Your task to perform on an android device: turn on the 24-hour format for clock Image 0: 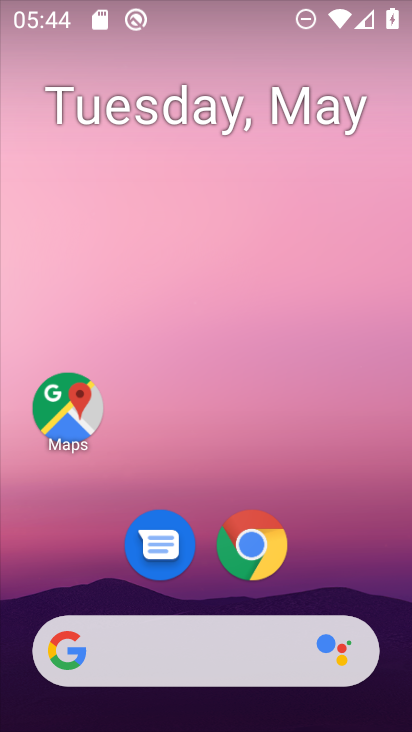
Step 0: drag from (368, 536) to (246, 0)
Your task to perform on an android device: turn on the 24-hour format for clock Image 1: 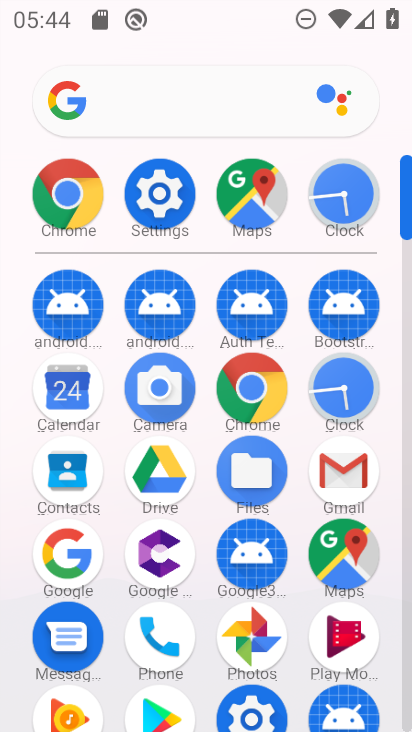
Step 1: click (340, 383)
Your task to perform on an android device: turn on the 24-hour format for clock Image 2: 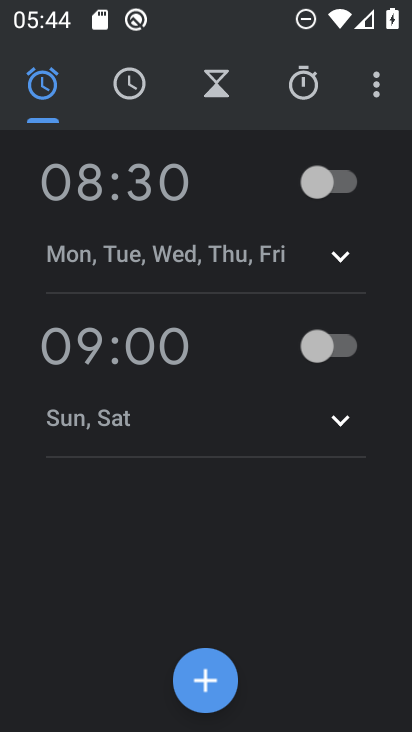
Step 2: drag from (372, 89) to (249, 162)
Your task to perform on an android device: turn on the 24-hour format for clock Image 3: 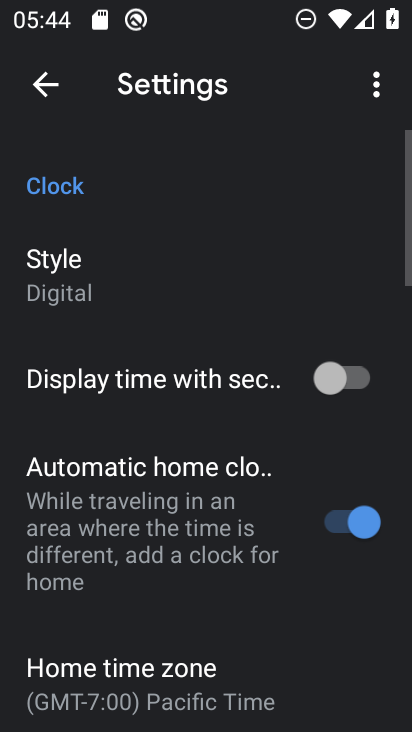
Step 3: drag from (210, 589) to (208, 217)
Your task to perform on an android device: turn on the 24-hour format for clock Image 4: 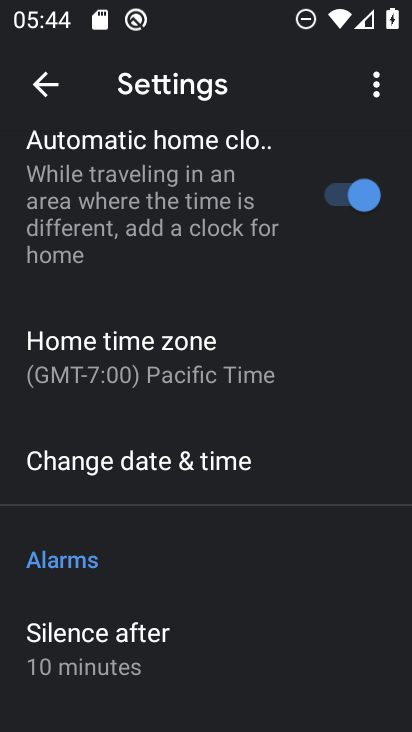
Step 4: click (169, 447)
Your task to perform on an android device: turn on the 24-hour format for clock Image 5: 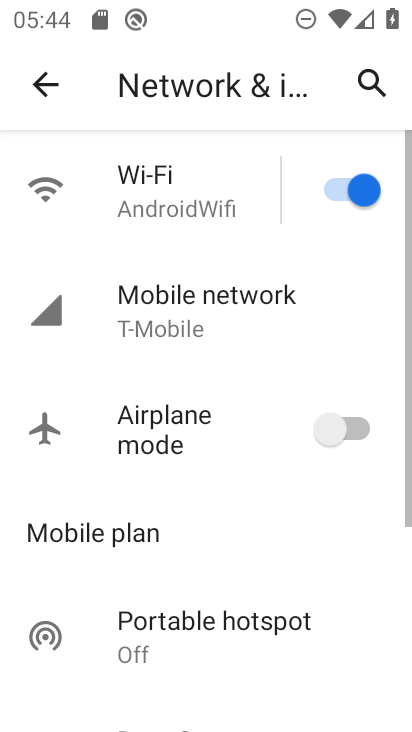
Step 5: drag from (192, 562) to (185, 165)
Your task to perform on an android device: turn on the 24-hour format for clock Image 6: 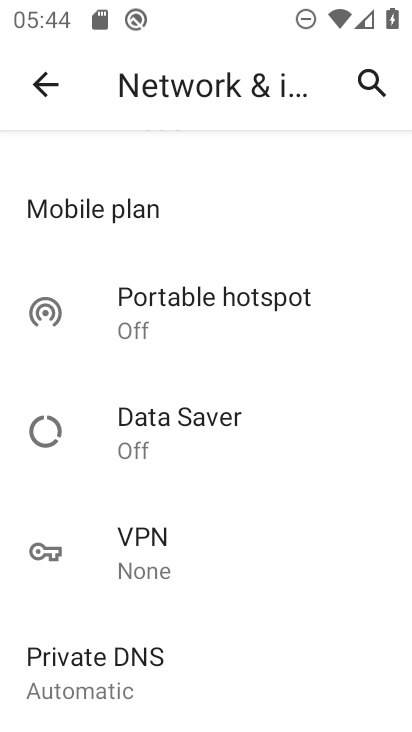
Step 6: drag from (230, 552) to (213, 153)
Your task to perform on an android device: turn on the 24-hour format for clock Image 7: 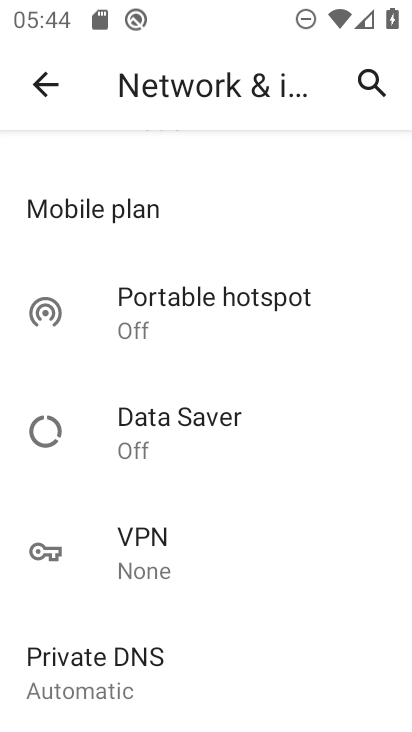
Step 7: drag from (163, 264) to (201, 669)
Your task to perform on an android device: turn on the 24-hour format for clock Image 8: 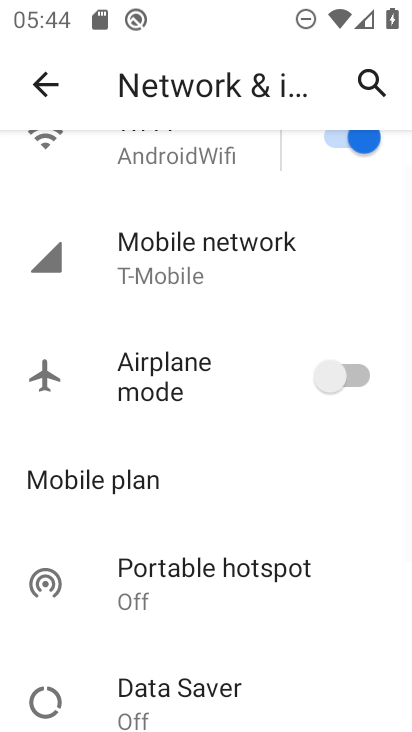
Step 8: drag from (202, 247) to (207, 699)
Your task to perform on an android device: turn on the 24-hour format for clock Image 9: 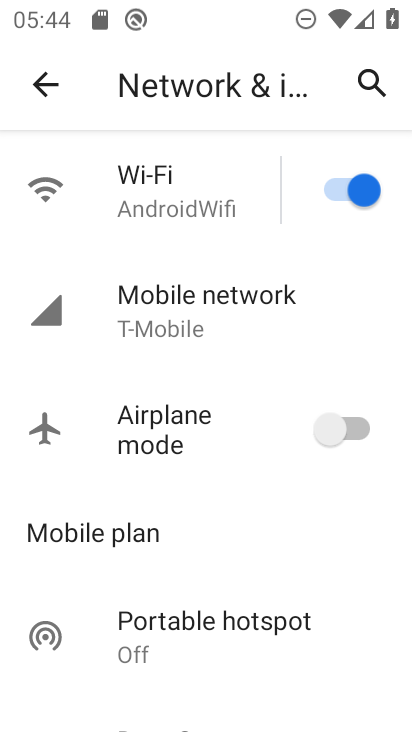
Step 9: drag from (211, 564) to (209, 165)
Your task to perform on an android device: turn on the 24-hour format for clock Image 10: 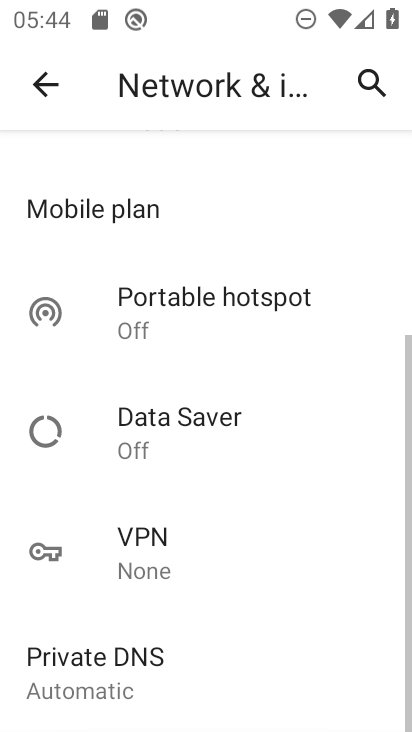
Step 10: click (23, 79)
Your task to perform on an android device: turn on the 24-hour format for clock Image 11: 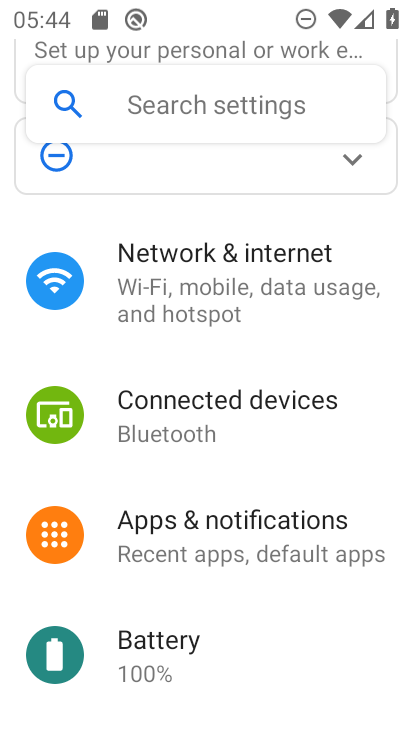
Step 11: task complete